Your task to perform on an android device: Go to settings Image 0: 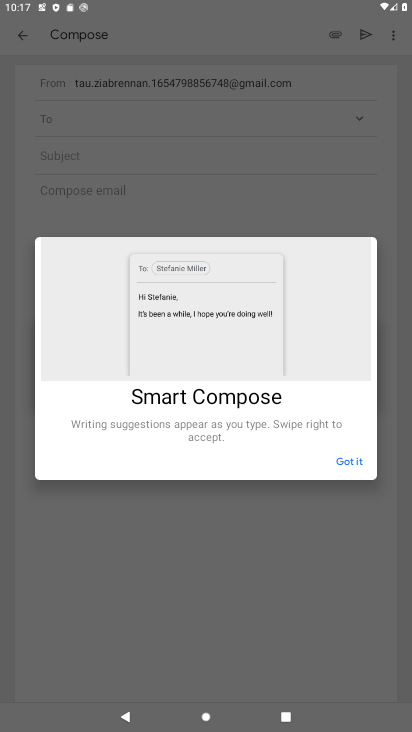
Step 0: press home button
Your task to perform on an android device: Go to settings Image 1: 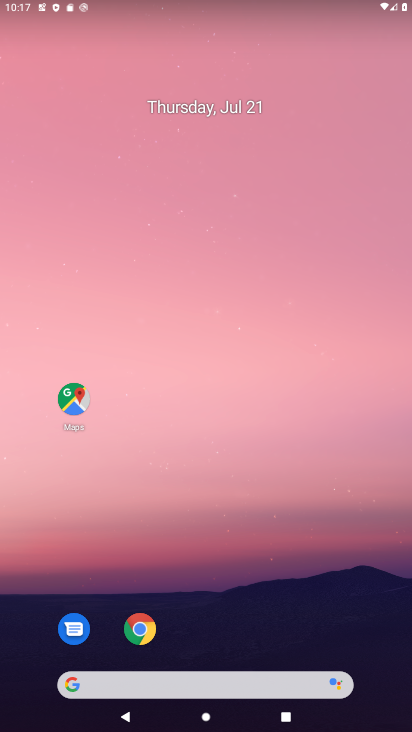
Step 1: drag from (301, 602) to (319, 177)
Your task to perform on an android device: Go to settings Image 2: 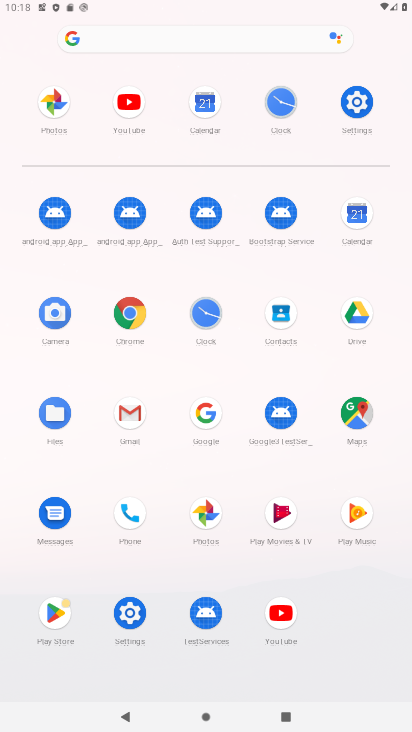
Step 2: click (346, 103)
Your task to perform on an android device: Go to settings Image 3: 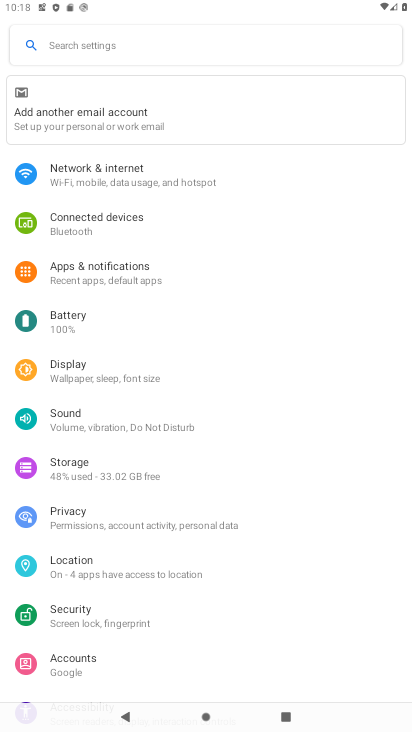
Step 3: task complete